Your task to perform on an android device: Search for flights from NYC to Paris Image 0: 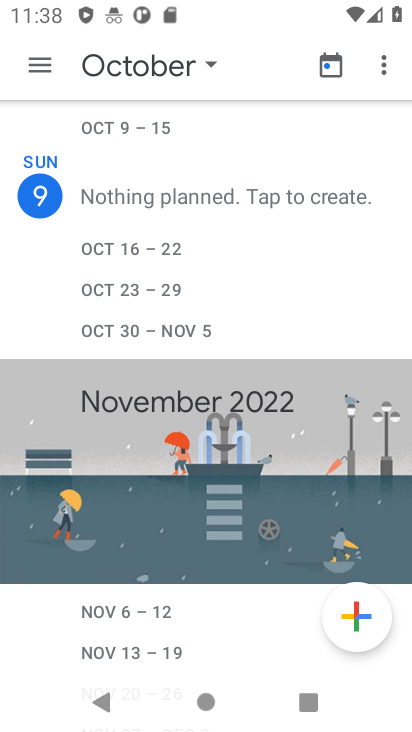
Step 0: press home button
Your task to perform on an android device: Search for flights from NYC to Paris Image 1: 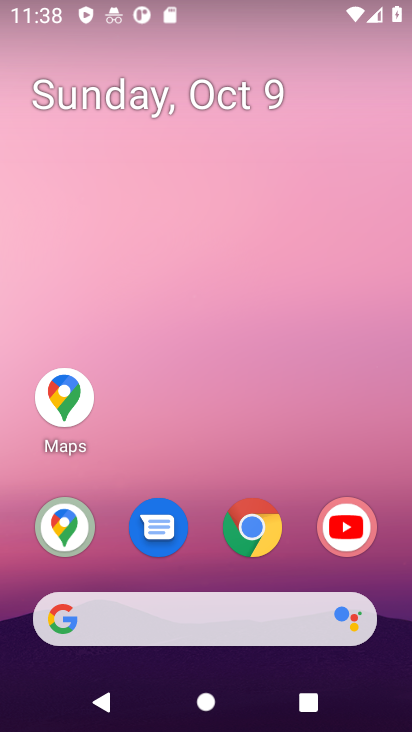
Step 1: click (252, 537)
Your task to perform on an android device: Search for flights from NYC to Paris Image 2: 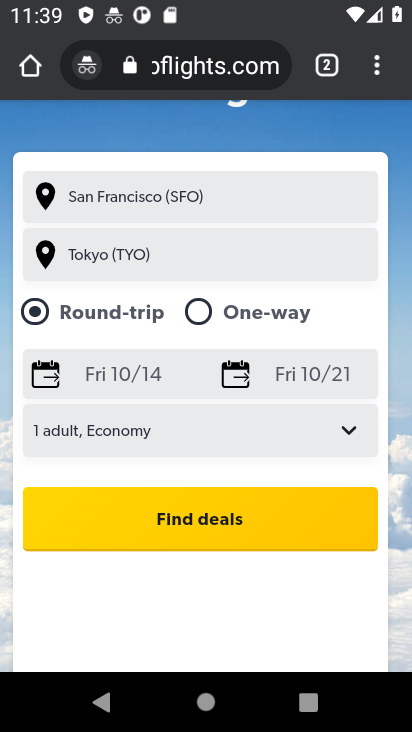
Step 2: click (195, 61)
Your task to perform on an android device: Search for flights from NYC to Paris Image 3: 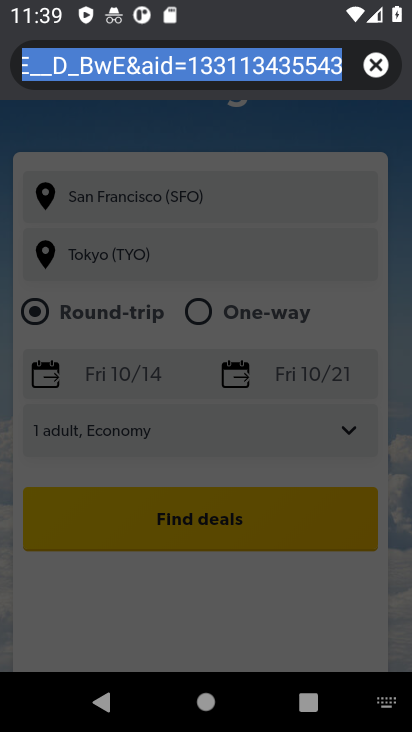
Step 3: type " flights from NYC to Paris"
Your task to perform on an android device: Search for flights from NYC to Paris Image 4: 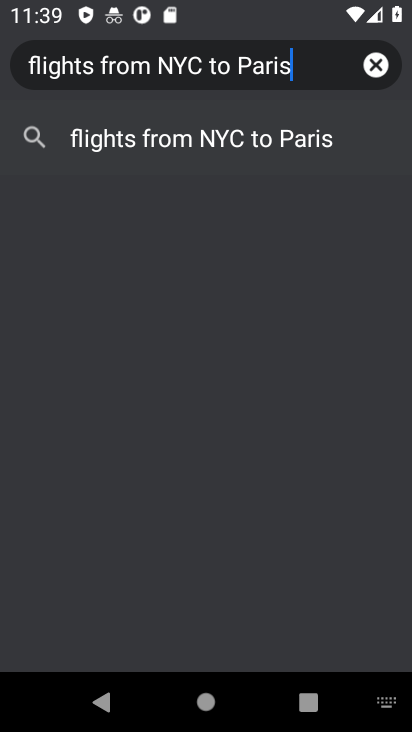
Step 4: click (286, 149)
Your task to perform on an android device: Search for flights from NYC to Paris Image 5: 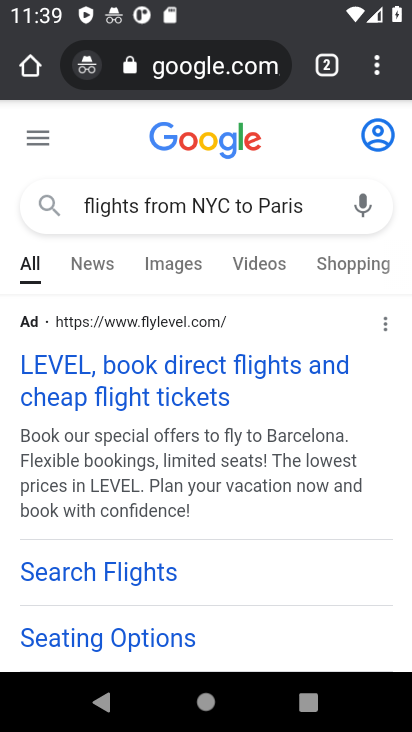
Step 5: click (134, 573)
Your task to perform on an android device: Search for flights from NYC to Paris Image 6: 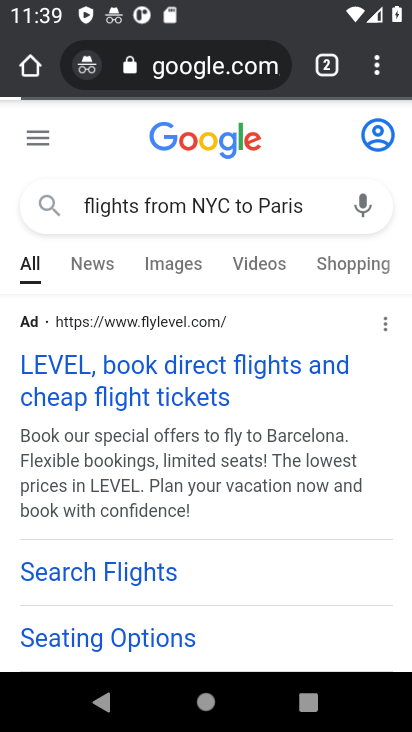
Step 6: click (134, 573)
Your task to perform on an android device: Search for flights from NYC to Paris Image 7: 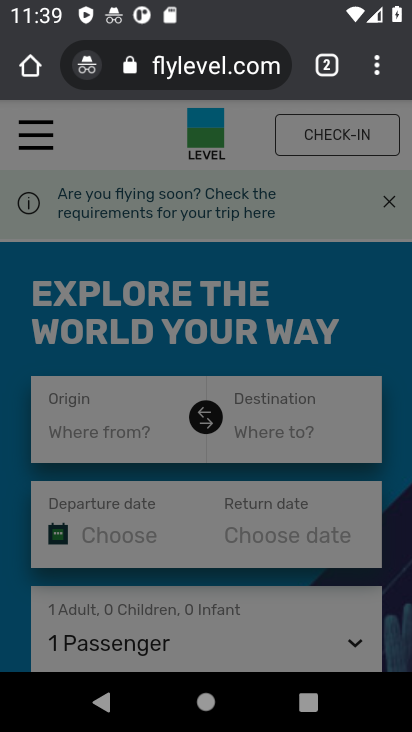
Step 7: task complete